Your task to perform on an android device: turn pop-ups off in chrome Image 0: 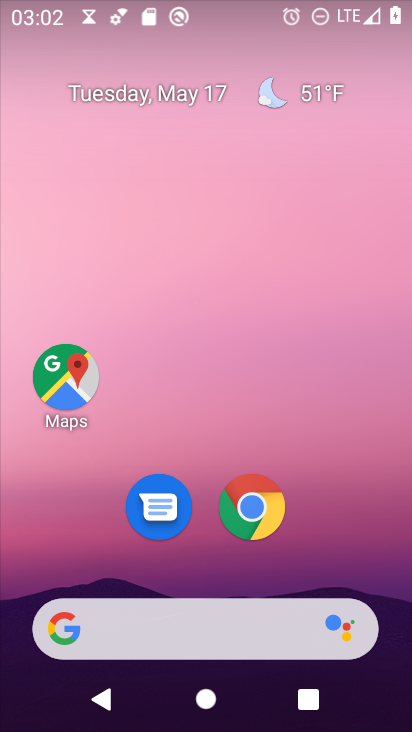
Step 0: click (251, 505)
Your task to perform on an android device: turn pop-ups off in chrome Image 1: 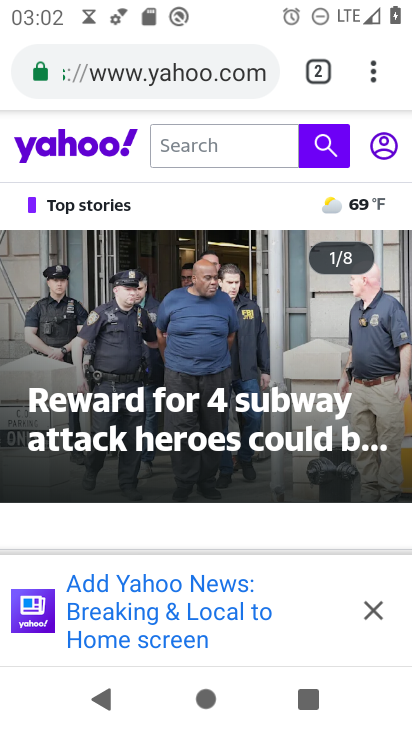
Step 1: click (369, 77)
Your task to perform on an android device: turn pop-ups off in chrome Image 2: 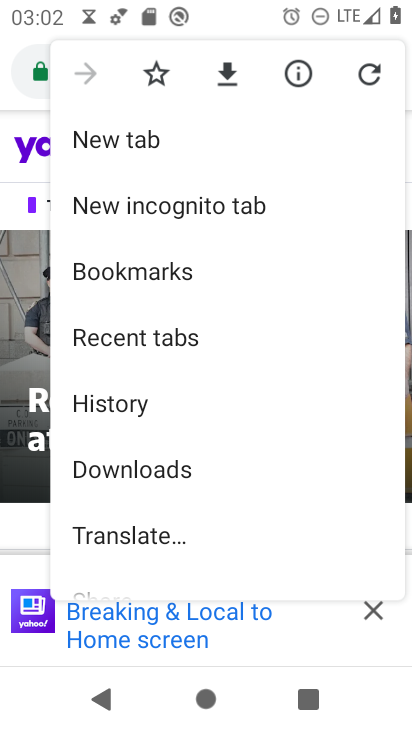
Step 2: drag from (140, 505) to (224, 269)
Your task to perform on an android device: turn pop-ups off in chrome Image 3: 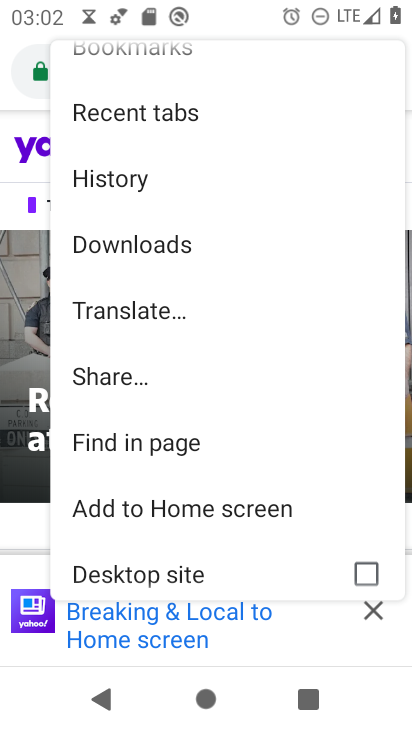
Step 3: drag from (117, 553) to (173, 323)
Your task to perform on an android device: turn pop-ups off in chrome Image 4: 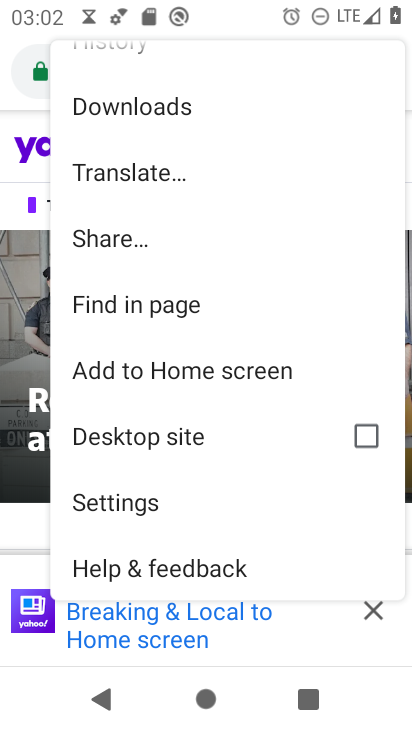
Step 4: click (153, 495)
Your task to perform on an android device: turn pop-ups off in chrome Image 5: 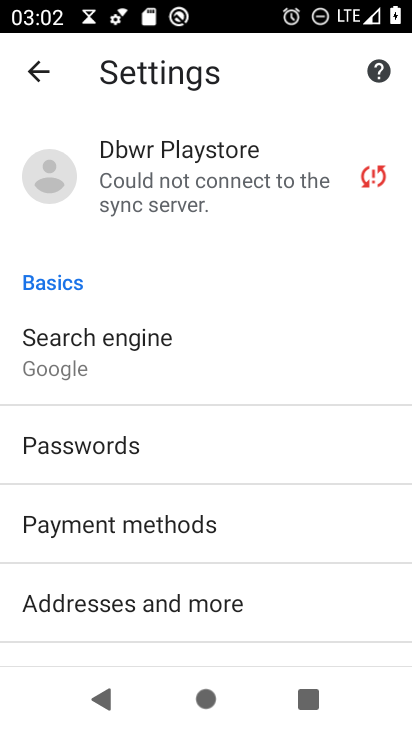
Step 5: drag from (233, 588) to (283, 323)
Your task to perform on an android device: turn pop-ups off in chrome Image 6: 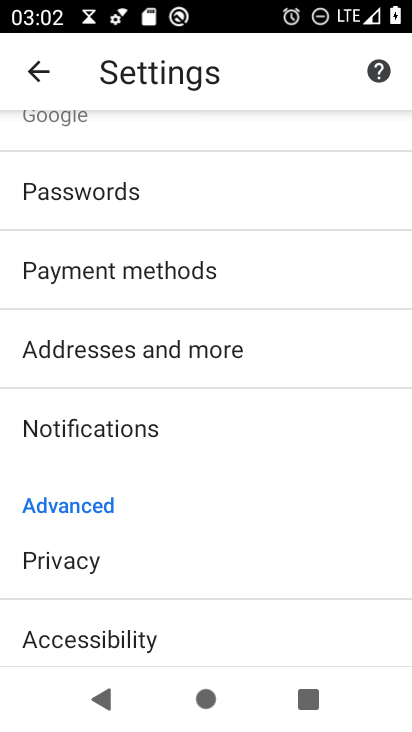
Step 6: drag from (157, 599) to (188, 295)
Your task to perform on an android device: turn pop-ups off in chrome Image 7: 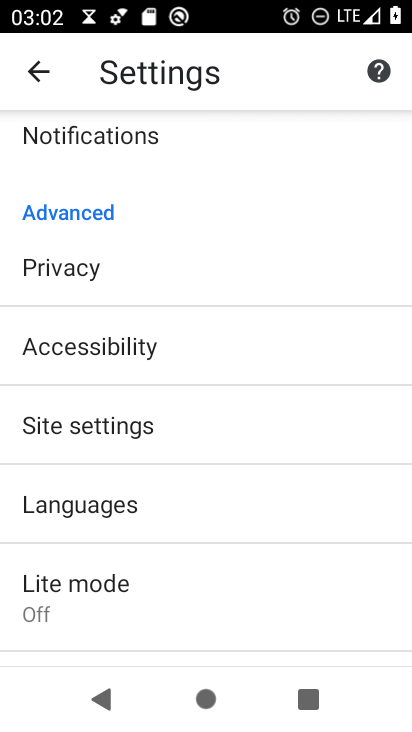
Step 7: click (127, 444)
Your task to perform on an android device: turn pop-ups off in chrome Image 8: 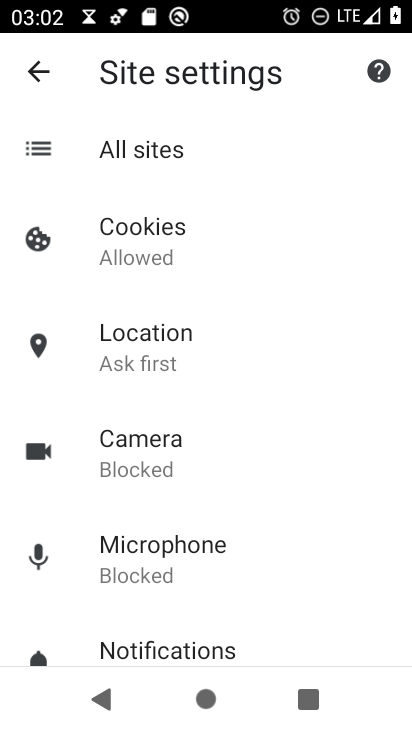
Step 8: drag from (206, 612) to (203, 387)
Your task to perform on an android device: turn pop-ups off in chrome Image 9: 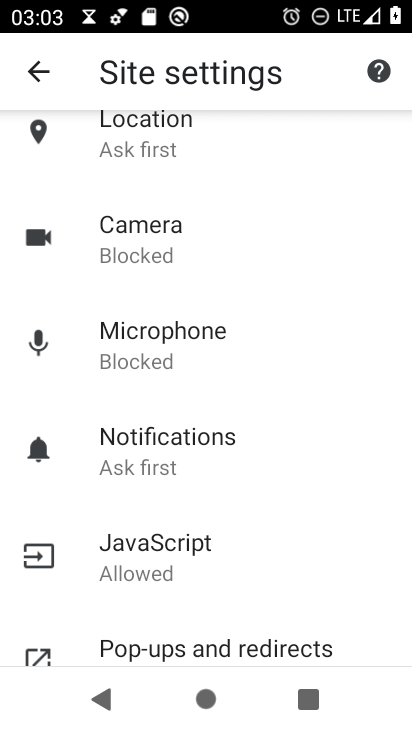
Step 9: click (173, 639)
Your task to perform on an android device: turn pop-ups off in chrome Image 10: 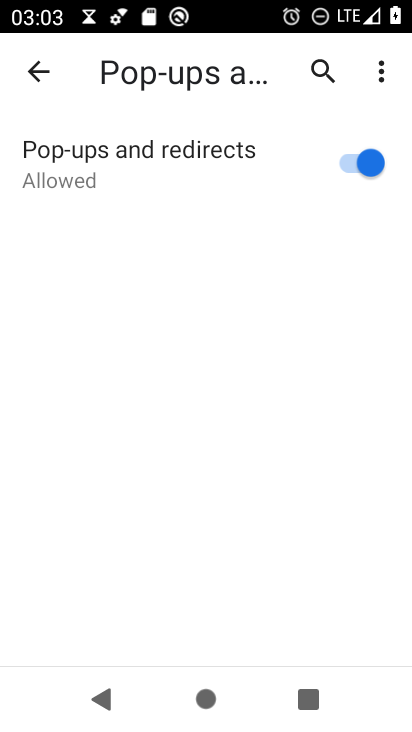
Step 10: click (350, 168)
Your task to perform on an android device: turn pop-ups off in chrome Image 11: 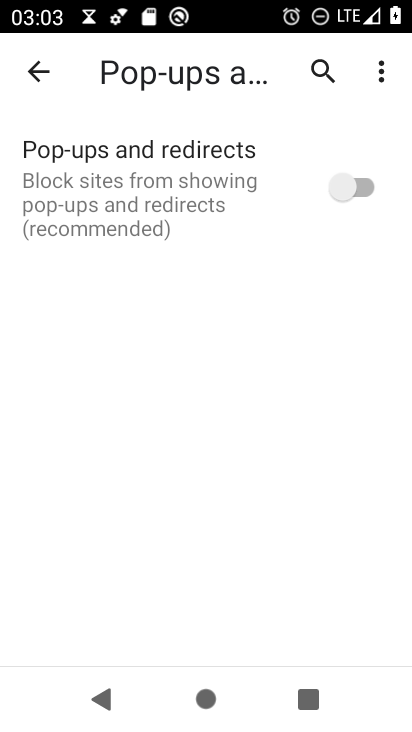
Step 11: task complete